Your task to perform on an android device: set default search engine in the chrome app Image 0: 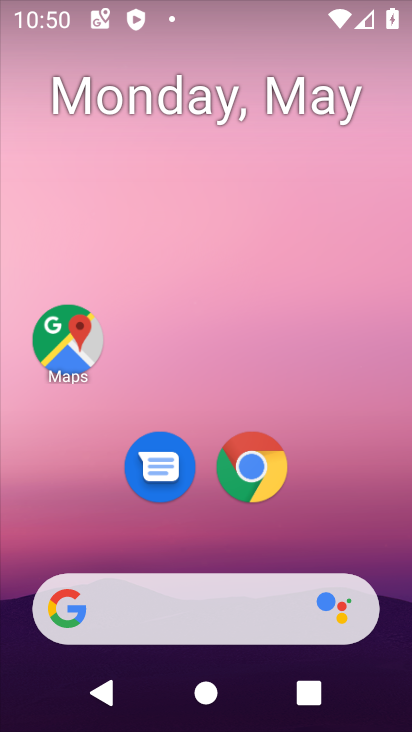
Step 0: click (252, 463)
Your task to perform on an android device: set default search engine in the chrome app Image 1: 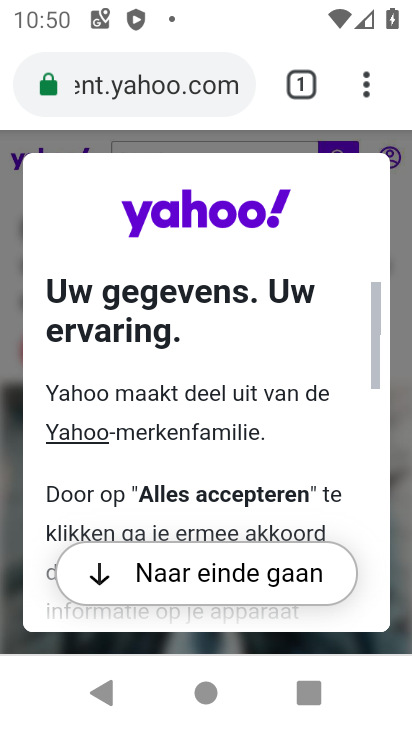
Step 1: click (366, 89)
Your task to perform on an android device: set default search engine in the chrome app Image 2: 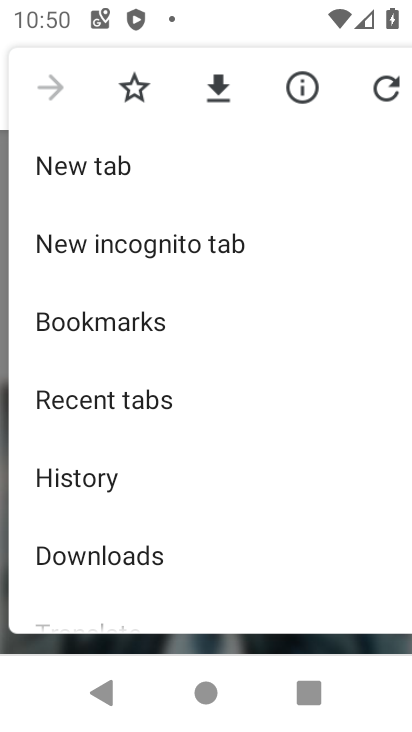
Step 2: drag from (210, 560) to (217, 192)
Your task to perform on an android device: set default search engine in the chrome app Image 3: 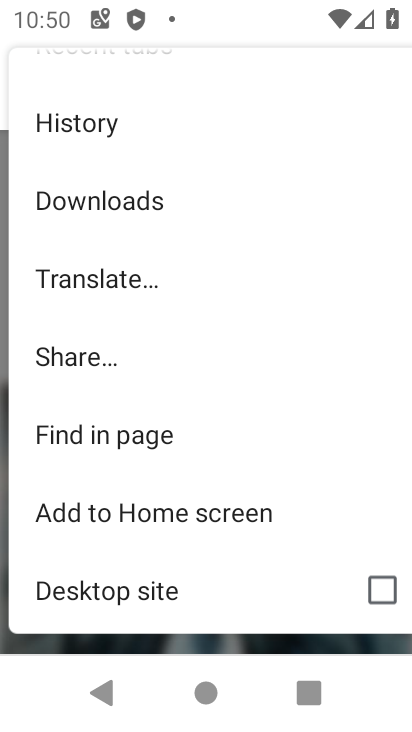
Step 3: drag from (291, 534) to (232, 194)
Your task to perform on an android device: set default search engine in the chrome app Image 4: 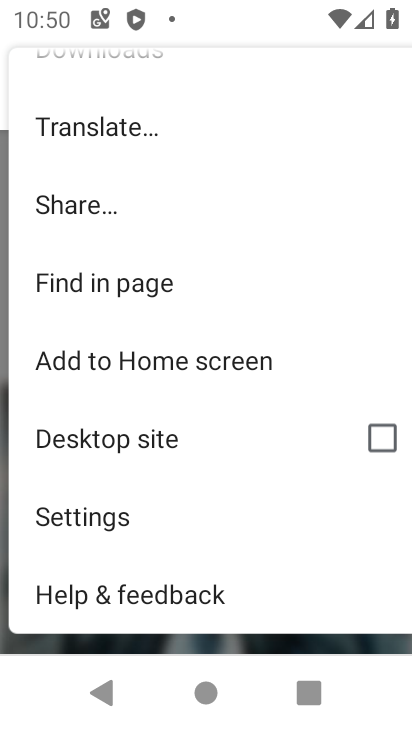
Step 4: click (59, 537)
Your task to perform on an android device: set default search engine in the chrome app Image 5: 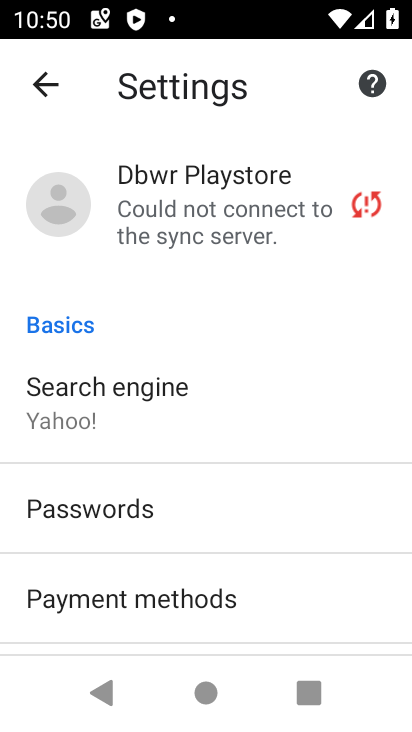
Step 5: click (71, 409)
Your task to perform on an android device: set default search engine in the chrome app Image 6: 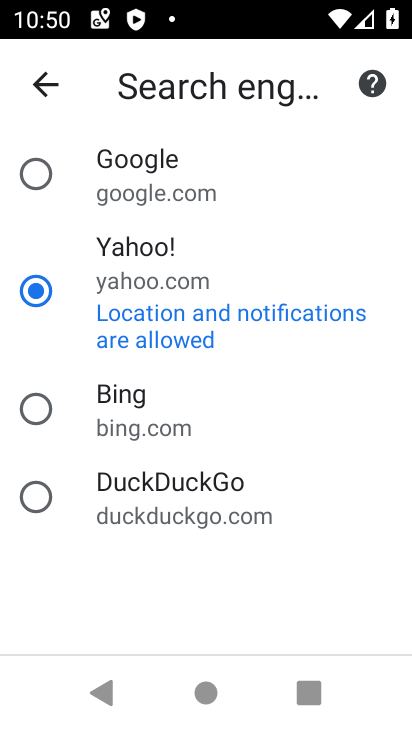
Step 6: click (47, 177)
Your task to perform on an android device: set default search engine in the chrome app Image 7: 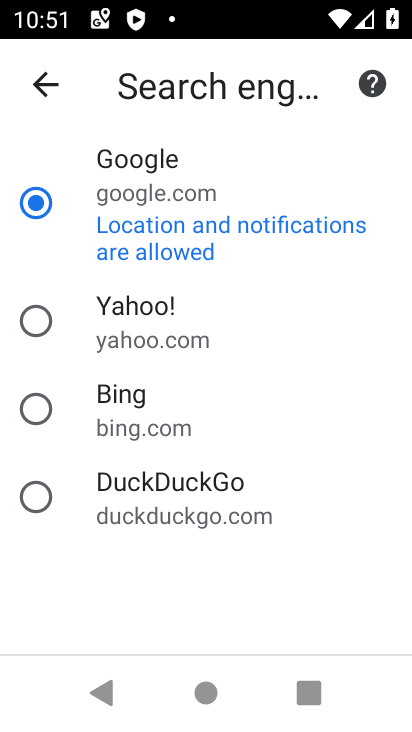
Step 7: task complete